Your task to perform on an android device: Go to location settings Image 0: 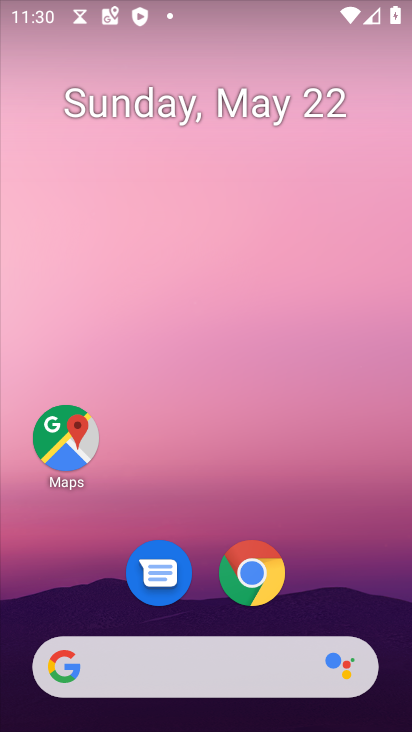
Step 0: press home button
Your task to perform on an android device: Go to location settings Image 1: 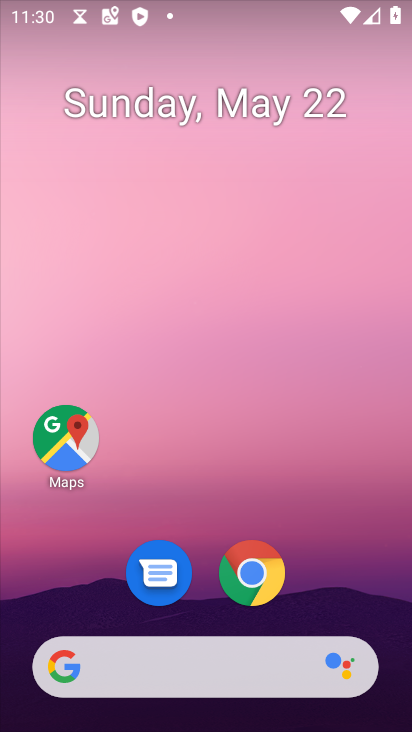
Step 1: drag from (154, 670) to (346, 28)
Your task to perform on an android device: Go to location settings Image 2: 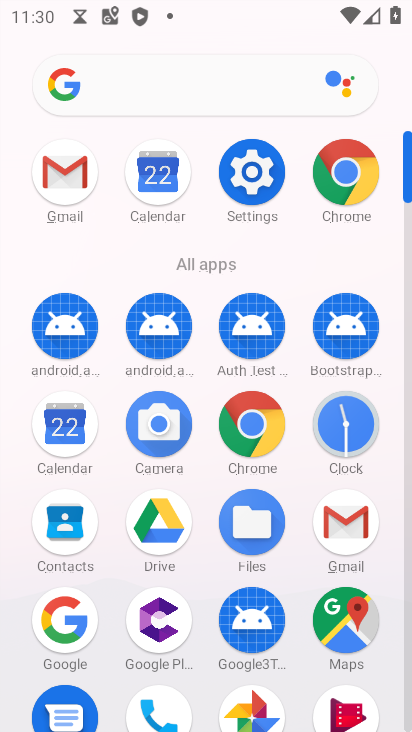
Step 2: click (241, 177)
Your task to perform on an android device: Go to location settings Image 3: 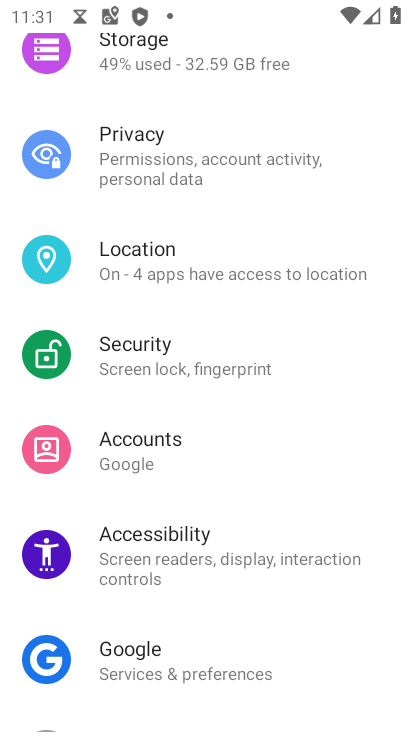
Step 3: click (160, 261)
Your task to perform on an android device: Go to location settings Image 4: 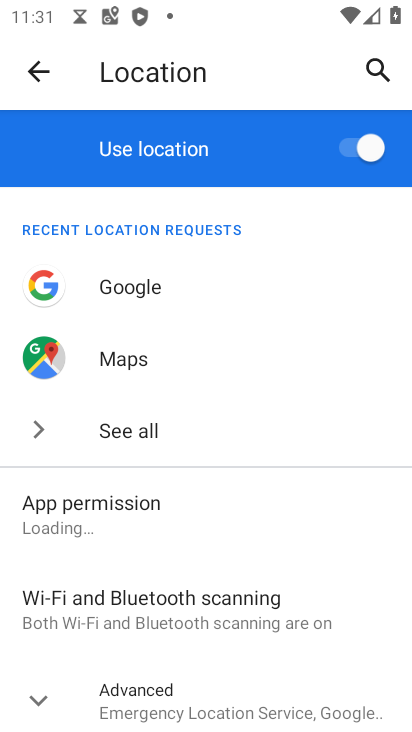
Step 4: task complete